Your task to perform on an android device: Search for vegetarian restaurants on Maps Image 0: 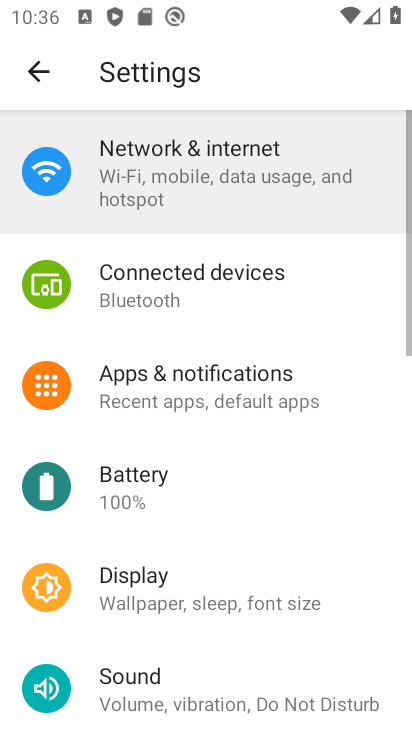
Step 0: press home button
Your task to perform on an android device: Search for vegetarian restaurants on Maps Image 1: 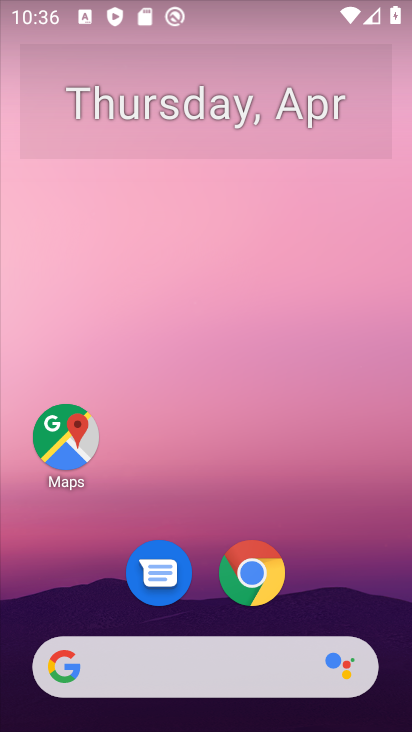
Step 1: click (68, 448)
Your task to perform on an android device: Search for vegetarian restaurants on Maps Image 2: 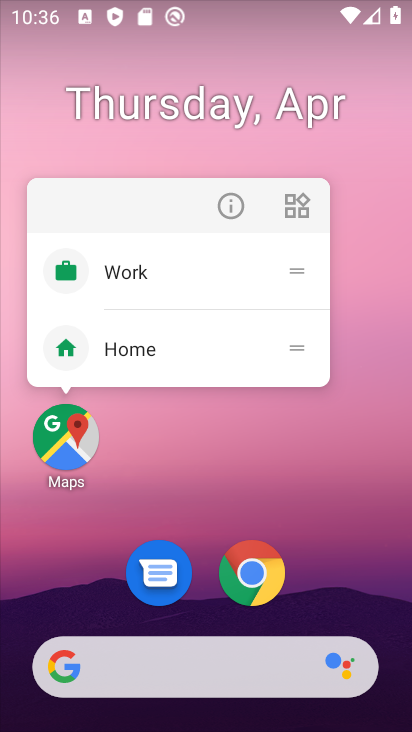
Step 2: click (103, 433)
Your task to perform on an android device: Search for vegetarian restaurants on Maps Image 3: 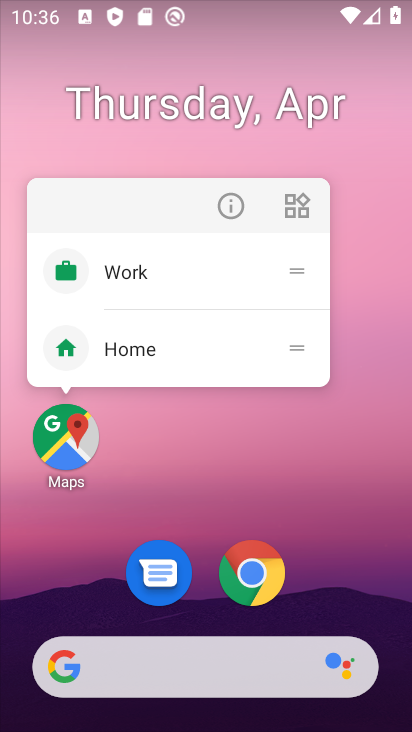
Step 3: click (90, 440)
Your task to perform on an android device: Search for vegetarian restaurants on Maps Image 4: 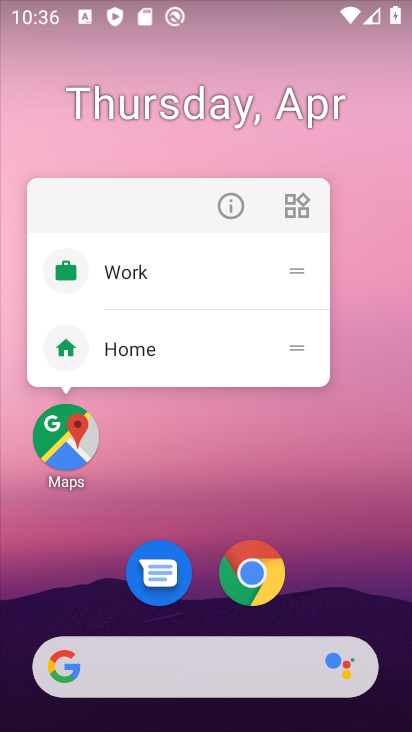
Step 4: click (58, 446)
Your task to perform on an android device: Search for vegetarian restaurants on Maps Image 5: 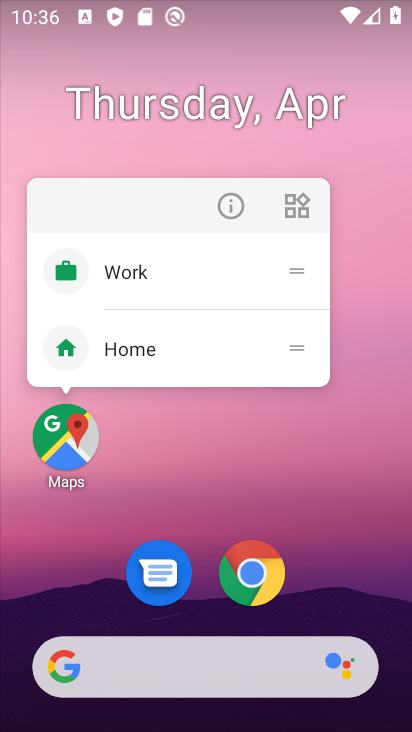
Step 5: click (58, 446)
Your task to perform on an android device: Search for vegetarian restaurants on Maps Image 6: 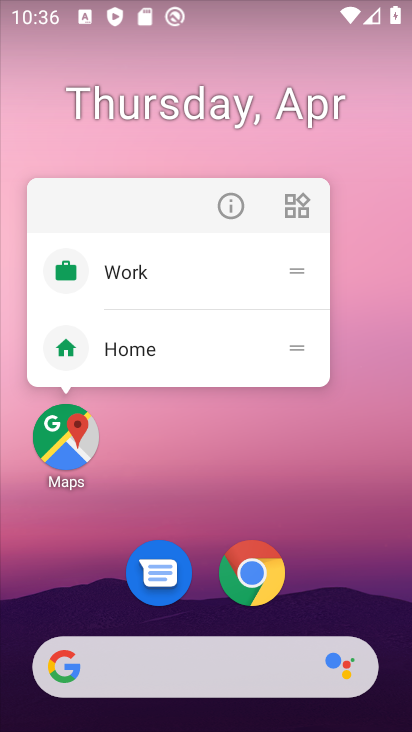
Step 6: click (72, 433)
Your task to perform on an android device: Search for vegetarian restaurants on Maps Image 7: 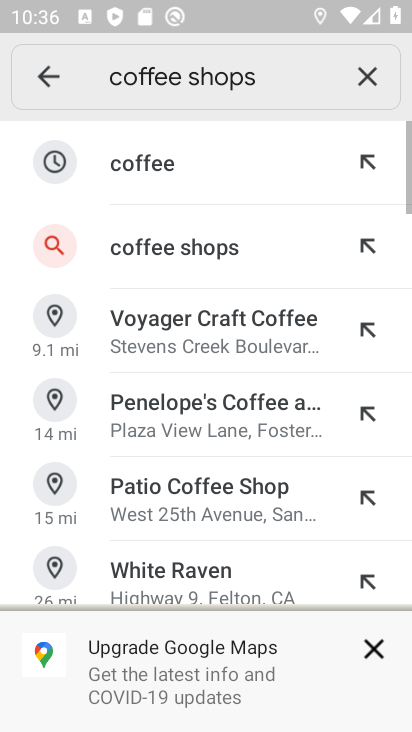
Step 7: click (360, 76)
Your task to perform on an android device: Search for vegetarian restaurants on Maps Image 8: 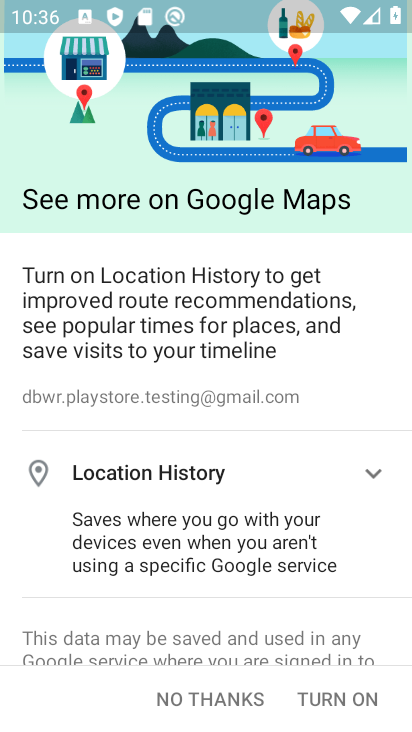
Step 8: click (320, 697)
Your task to perform on an android device: Search for vegetarian restaurants on Maps Image 9: 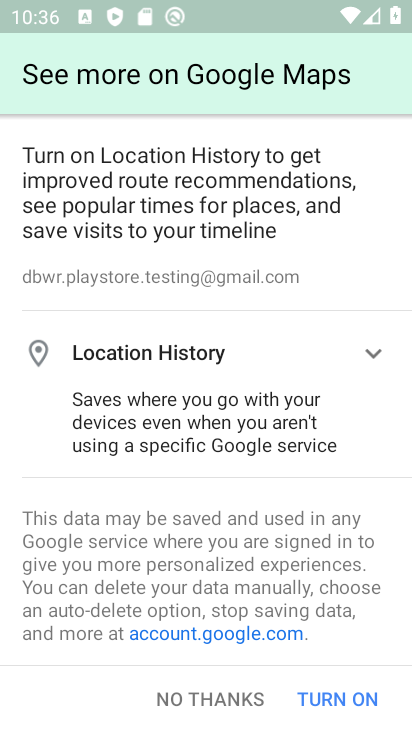
Step 9: click (320, 697)
Your task to perform on an android device: Search for vegetarian restaurants on Maps Image 10: 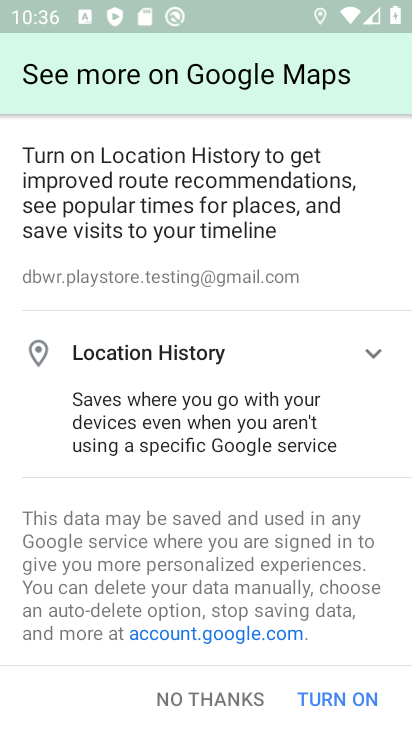
Step 10: click (320, 697)
Your task to perform on an android device: Search for vegetarian restaurants on Maps Image 11: 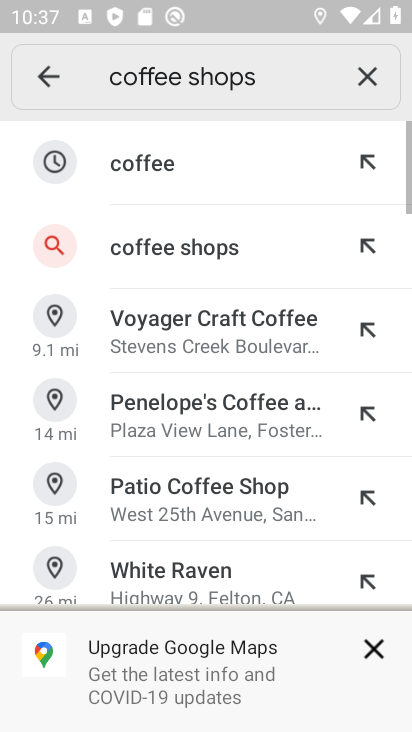
Step 11: click (379, 83)
Your task to perform on an android device: Search for vegetarian restaurants on Maps Image 12: 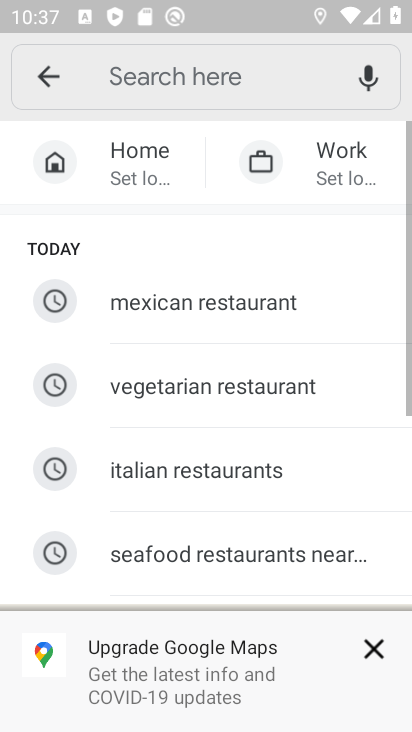
Step 12: click (158, 69)
Your task to perform on an android device: Search for vegetarian restaurants on Maps Image 13: 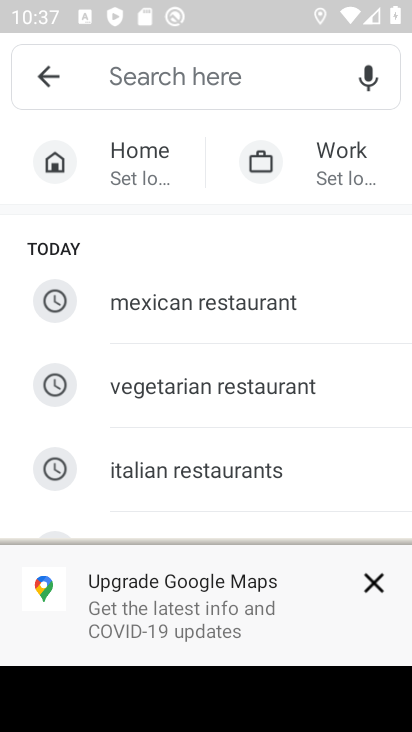
Step 13: type "vegetarian restaurants"
Your task to perform on an android device: Search for vegetarian restaurants on Maps Image 14: 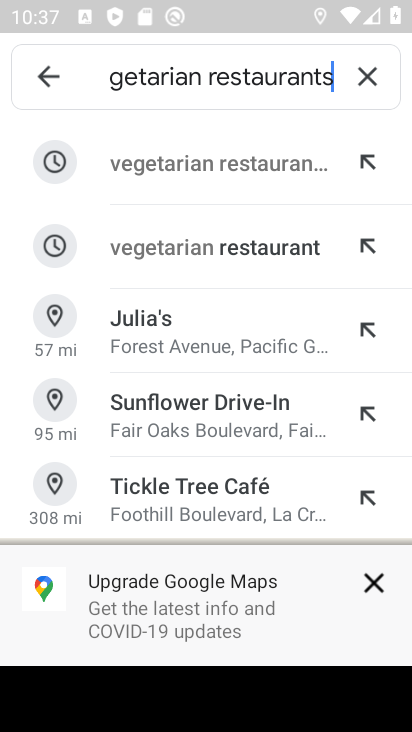
Step 14: task complete